Your task to perform on an android device: Open my contact list Image 0: 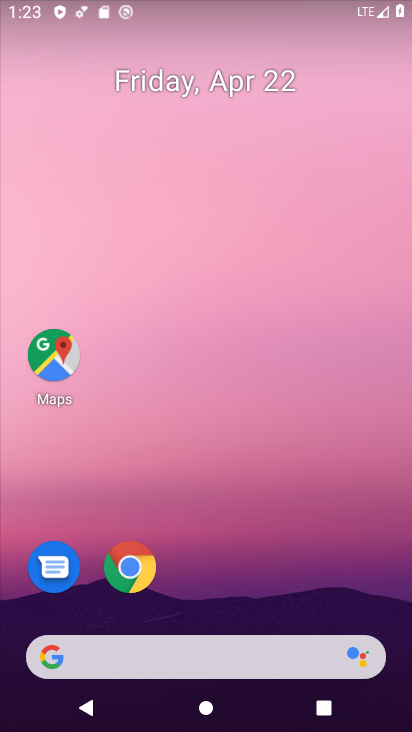
Step 0: drag from (386, 606) to (289, 145)
Your task to perform on an android device: Open my contact list Image 1: 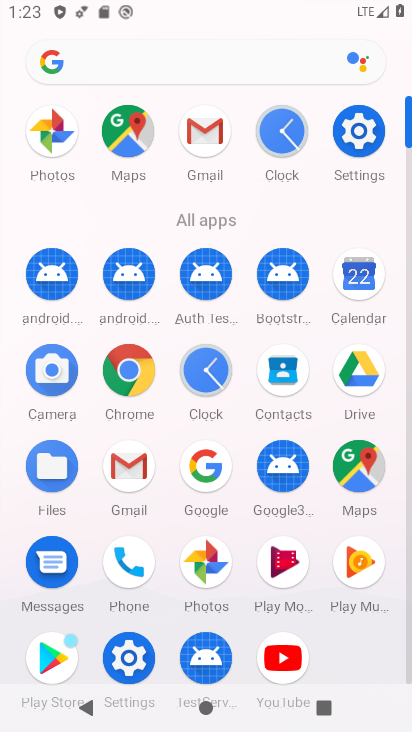
Step 1: click (275, 374)
Your task to perform on an android device: Open my contact list Image 2: 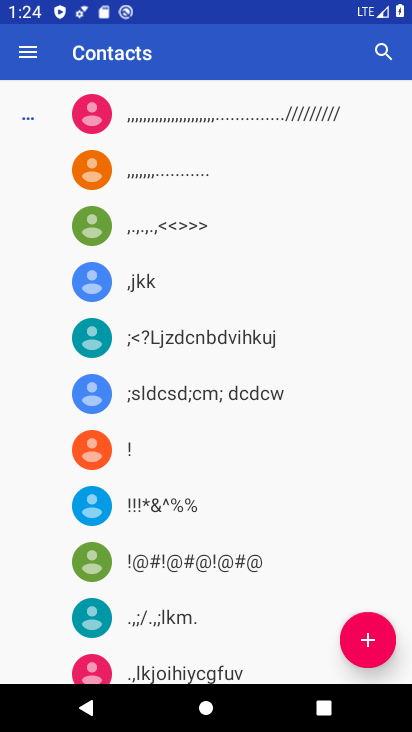
Step 2: task complete